Your task to perform on an android device: search for starred emails in the gmail app Image 0: 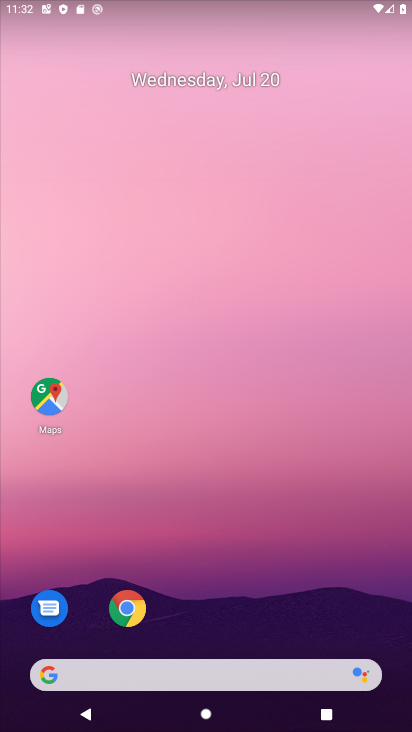
Step 0: drag from (336, 620) to (12, 46)
Your task to perform on an android device: search for starred emails in the gmail app Image 1: 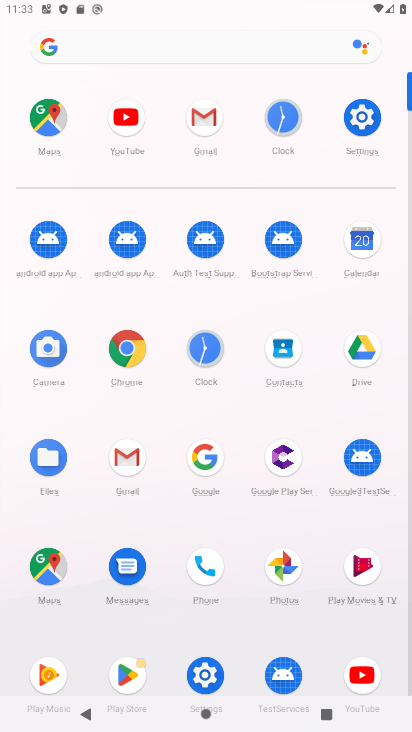
Step 1: click (128, 469)
Your task to perform on an android device: search for starred emails in the gmail app Image 2: 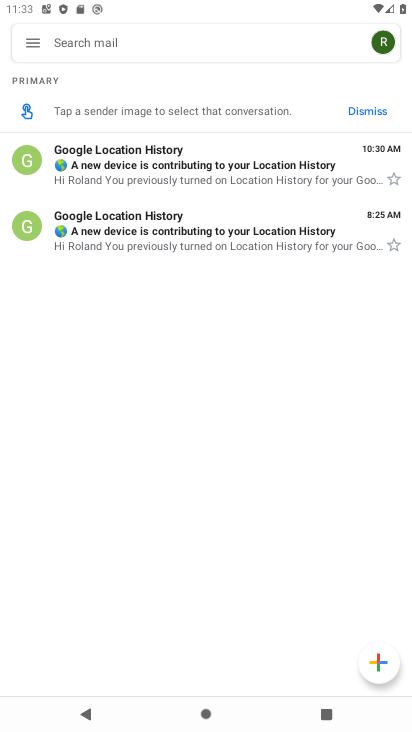
Step 2: click (36, 40)
Your task to perform on an android device: search for starred emails in the gmail app Image 3: 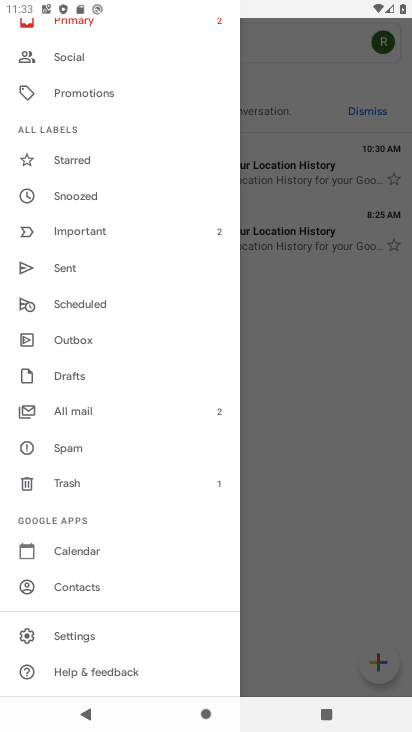
Step 3: click (59, 161)
Your task to perform on an android device: search for starred emails in the gmail app Image 4: 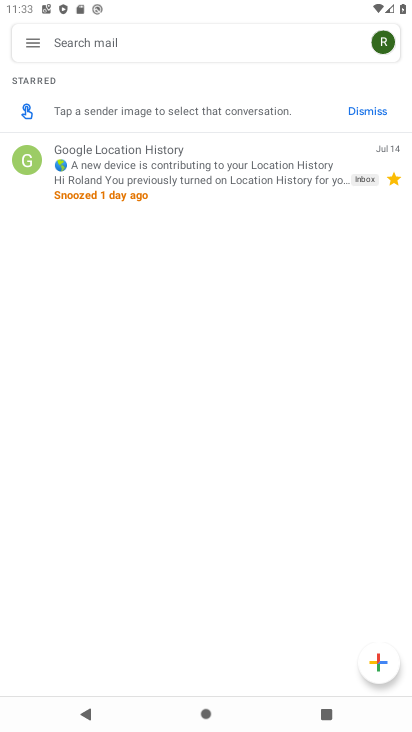
Step 4: task complete